Your task to perform on an android device: move an email to a new category in the gmail app Image 0: 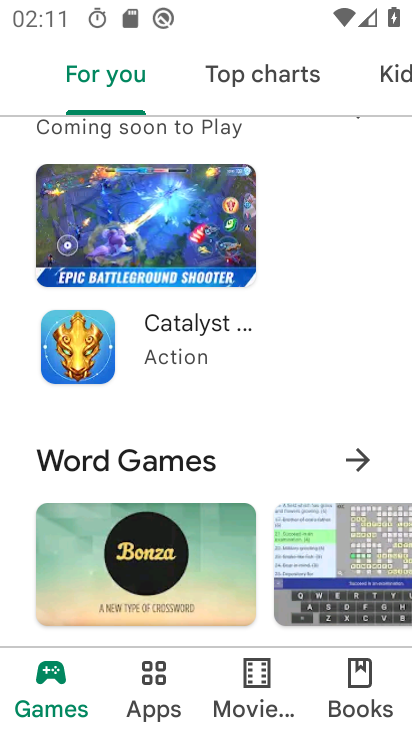
Step 0: press home button
Your task to perform on an android device: move an email to a new category in the gmail app Image 1: 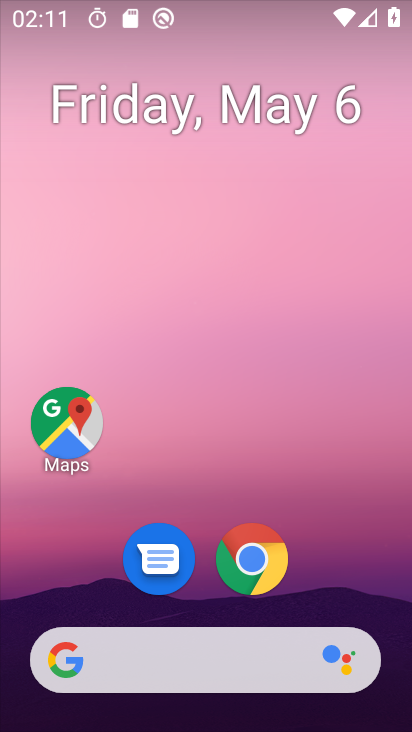
Step 1: drag from (312, 599) to (330, 0)
Your task to perform on an android device: move an email to a new category in the gmail app Image 2: 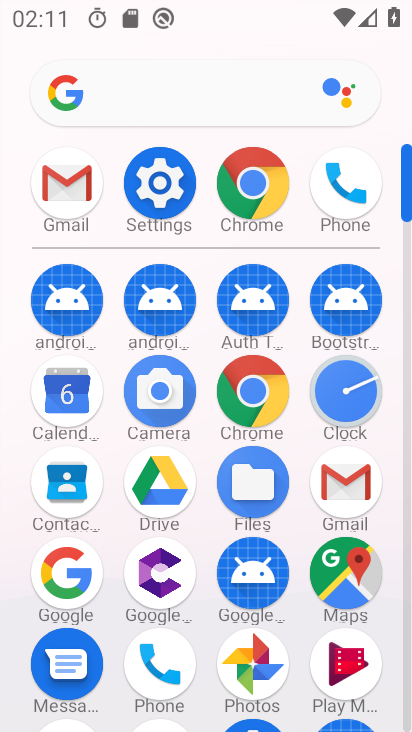
Step 2: click (332, 479)
Your task to perform on an android device: move an email to a new category in the gmail app Image 3: 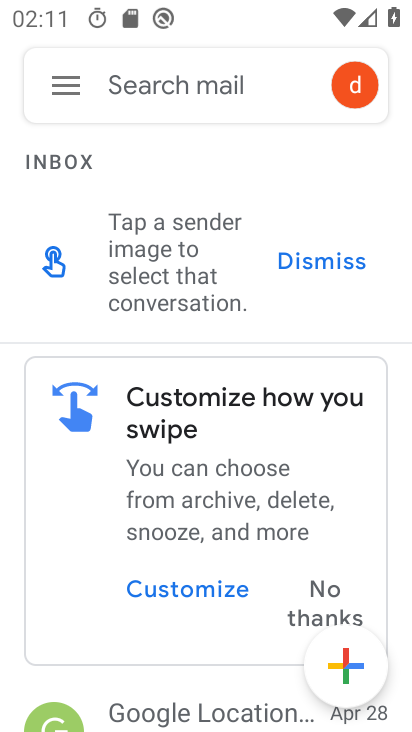
Step 3: drag from (71, 80) to (131, 208)
Your task to perform on an android device: move an email to a new category in the gmail app Image 4: 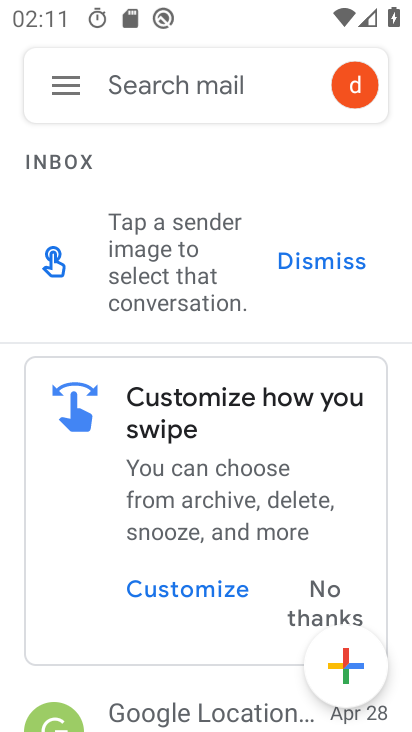
Step 4: click (71, 82)
Your task to perform on an android device: move an email to a new category in the gmail app Image 5: 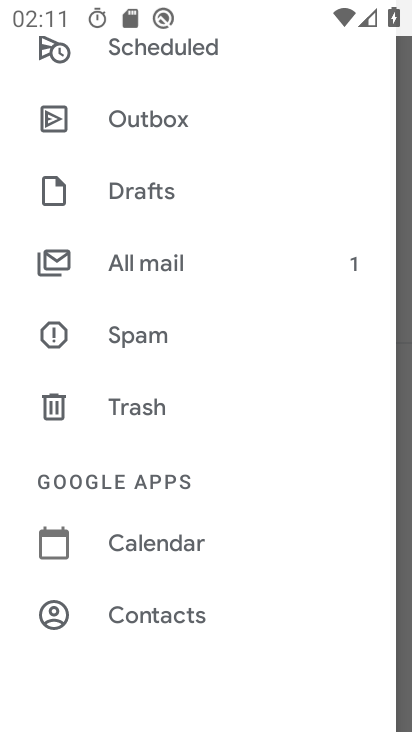
Step 5: drag from (249, 213) to (247, 682)
Your task to perform on an android device: move an email to a new category in the gmail app Image 6: 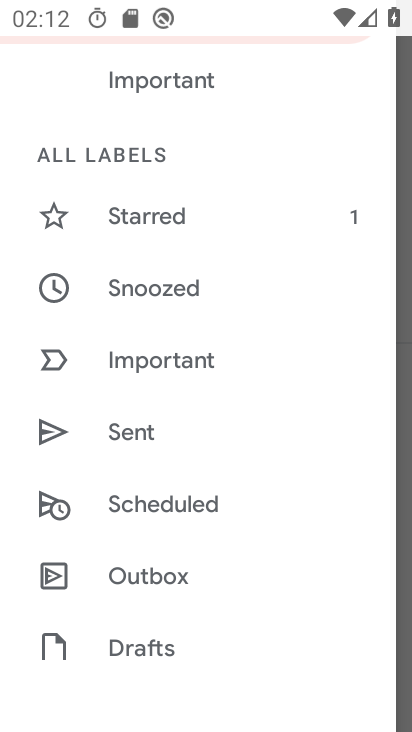
Step 6: drag from (396, 258) to (49, 319)
Your task to perform on an android device: move an email to a new category in the gmail app Image 7: 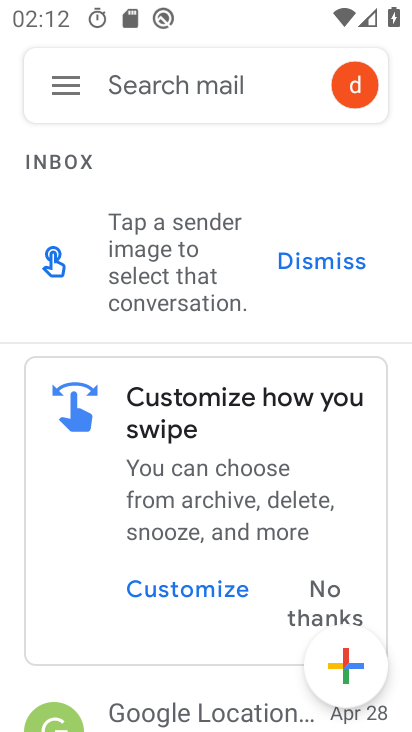
Step 7: drag from (230, 660) to (244, 147)
Your task to perform on an android device: move an email to a new category in the gmail app Image 8: 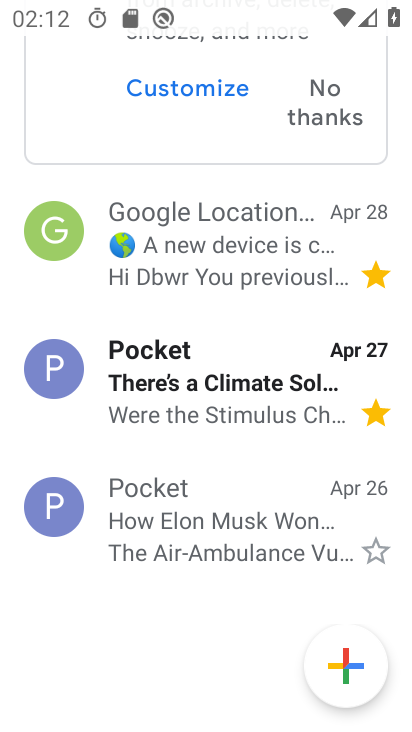
Step 8: click (237, 277)
Your task to perform on an android device: move an email to a new category in the gmail app Image 9: 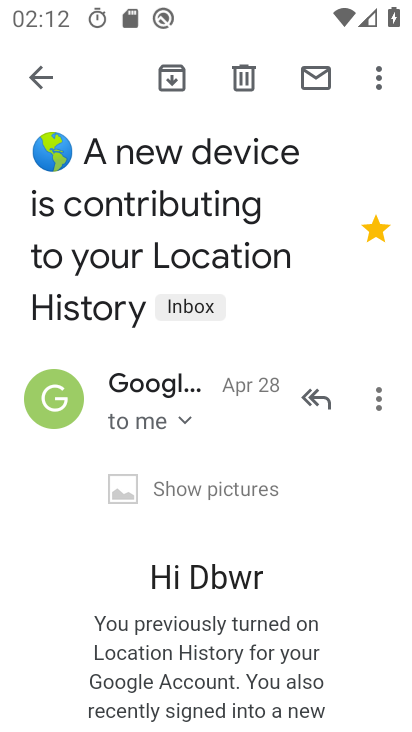
Step 9: click (380, 397)
Your task to perform on an android device: move an email to a new category in the gmail app Image 10: 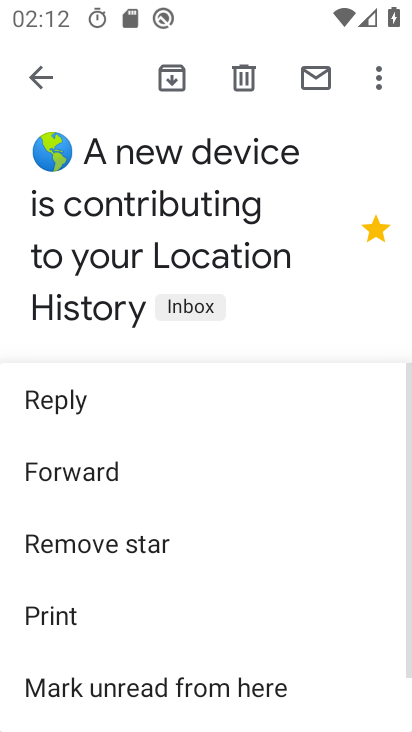
Step 10: click (327, 324)
Your task to perform on an android device: move an email to a new category in the gmail app Image 11: 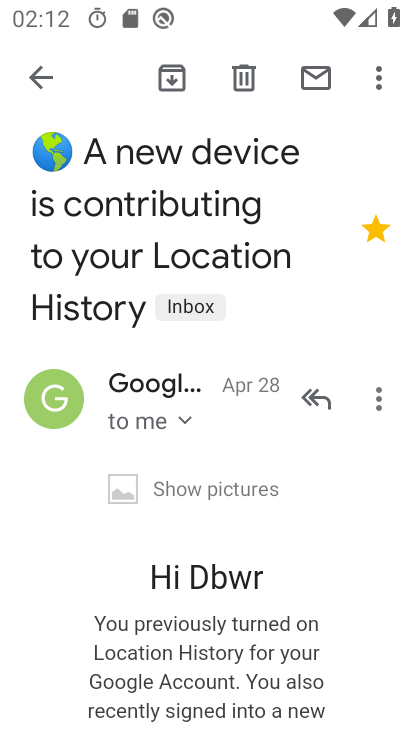
Step 11: click (381, 78)
Your task to perform on an android device: move an email to a new category in the gmail app Image 12: 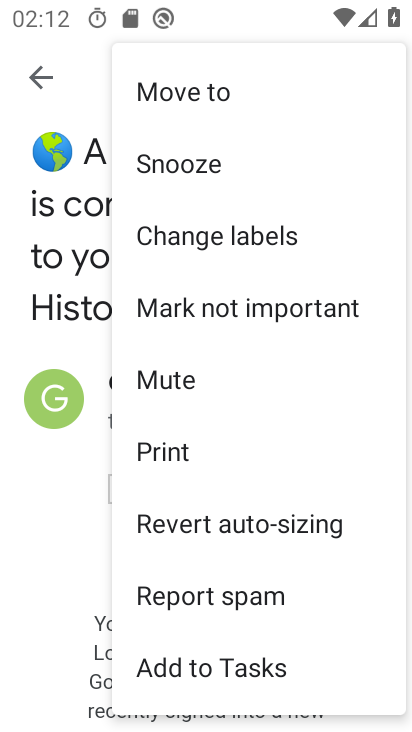
Step 12: click (234, 310)
Your task to perform on an android device: move an email to a new category in the gmail app Image 13: 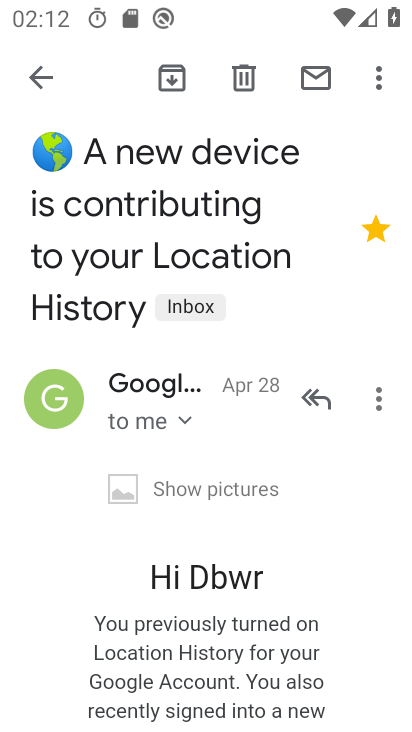
Step 13: task complete